Your task to perform on an android device: turn on the 12-hour format for clock Image 0: 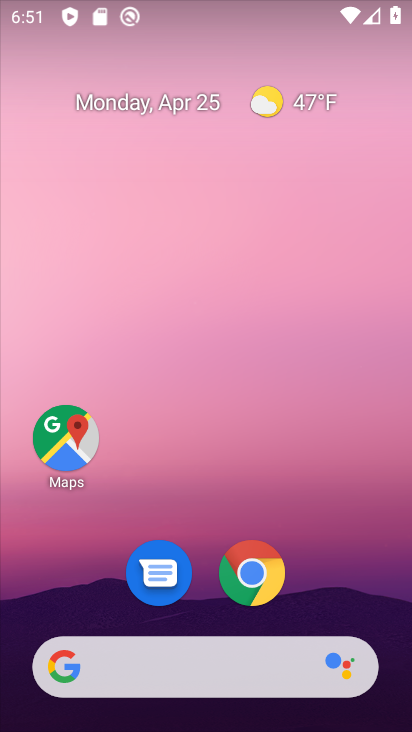
Step 0: drag from (313, 540) to (233, 112)
Your task to perform on an android device: turn on the 12-hour format for clock Image 1: 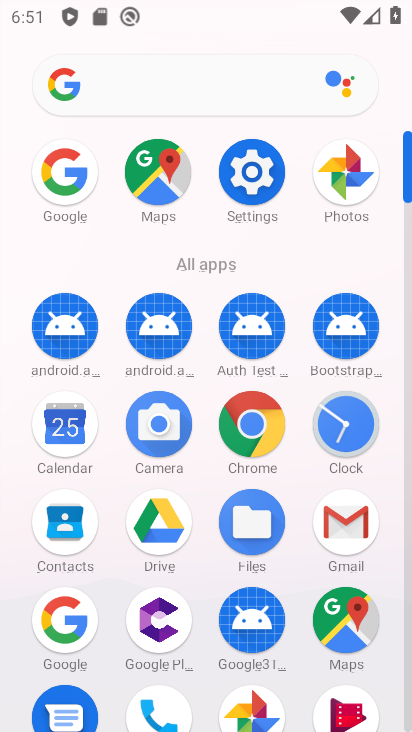
Step 1: click (350, 415)
Your task to perform on an android device: turn on the 12-hour format for clock Image 2: 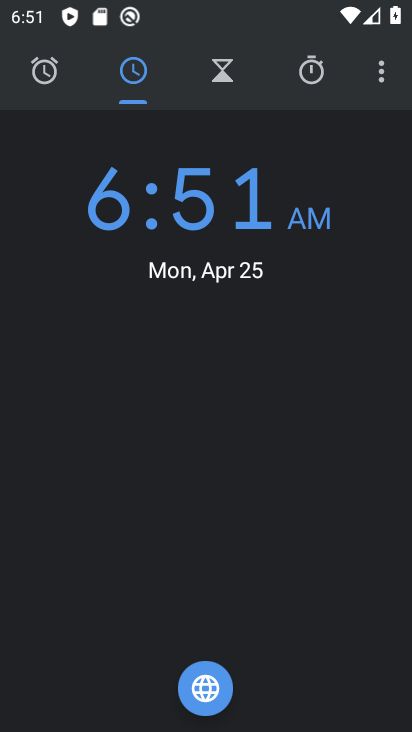
Step 2: click (386, 68)
Your task to perform on an android device: turn on the 12-hour format for clock Image 3: 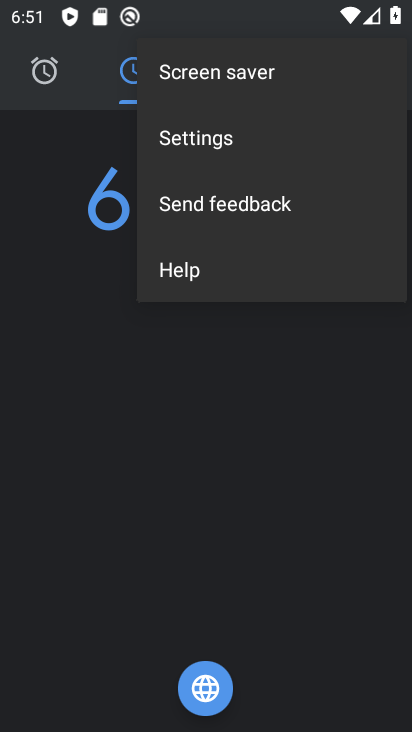
Step 3: click (249, 156)
Your task to perform on an android device: turn on the 12-hour format for clock Image 4: 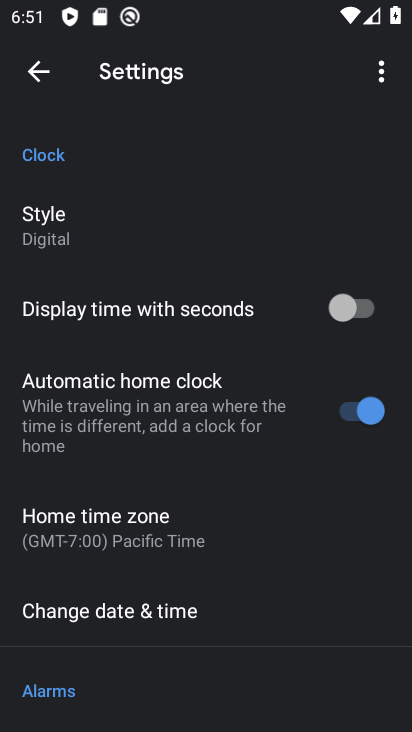
Step 4: click (152, 604)
Your task to perform on an android device: turn on the 12-hour format for clock Image 5: 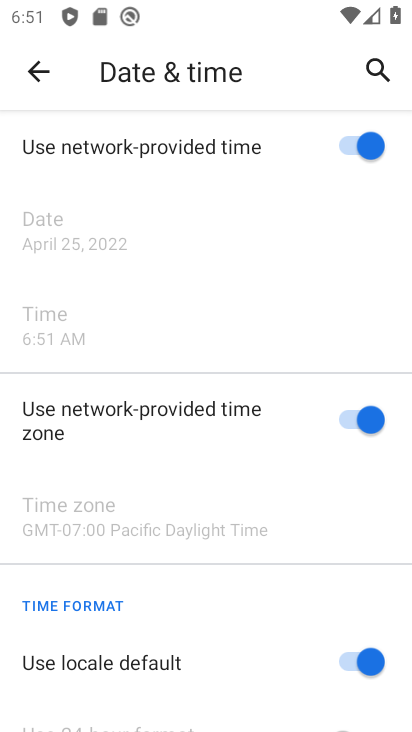
Step 5: task complete